Your task to perform on an android device: turn notification dots off Image 0: 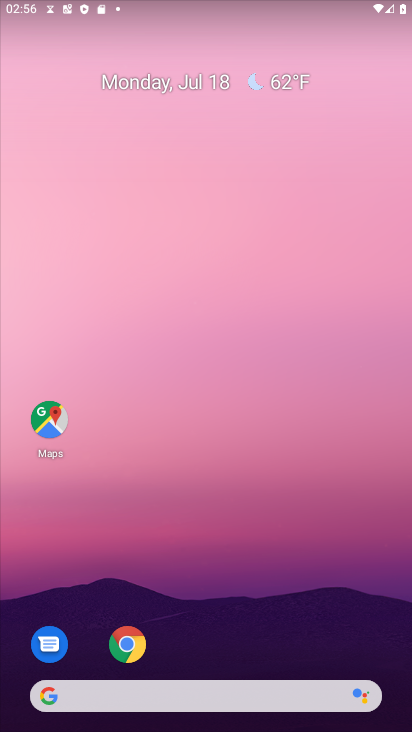
Step 0: press back button
Your task to perform on an android device: turn notification dots off Image 1: 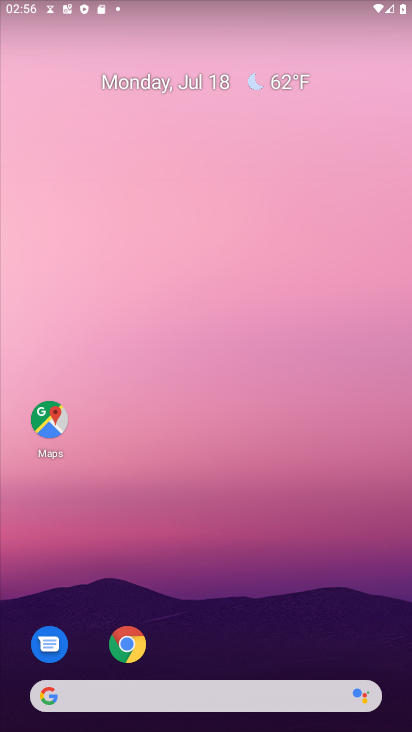
Step 1: click (171, 11)
Your task to perform on an android device: turn notification dots off Image 2: 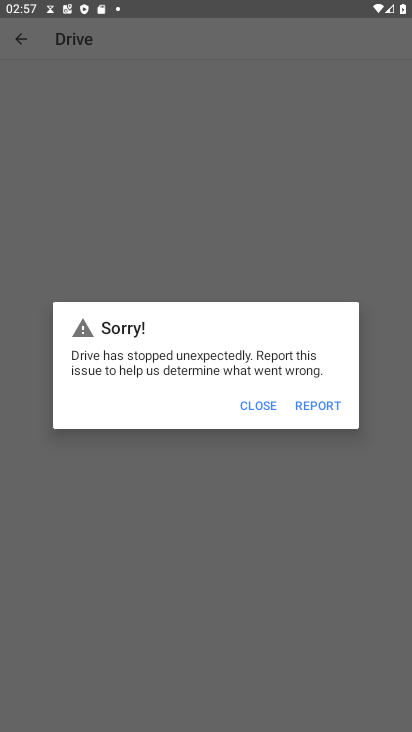
Step 2: click (260, 398)
Your task to perform on an android device: turn notification dots off Image 3: 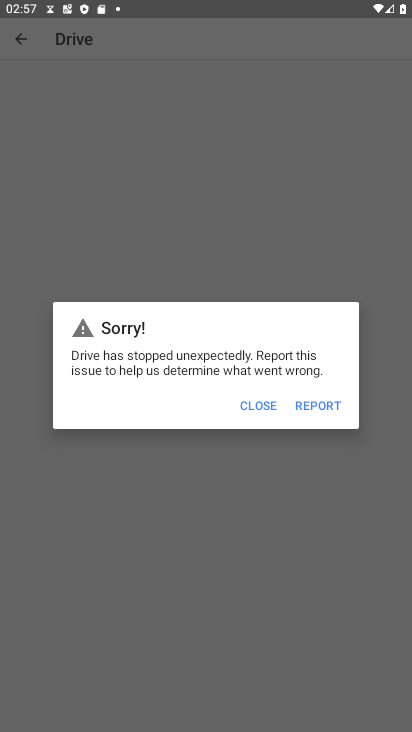
Step 3: click (260, 398)
Your task to perform on an android device: turn notification dots off Image 4: 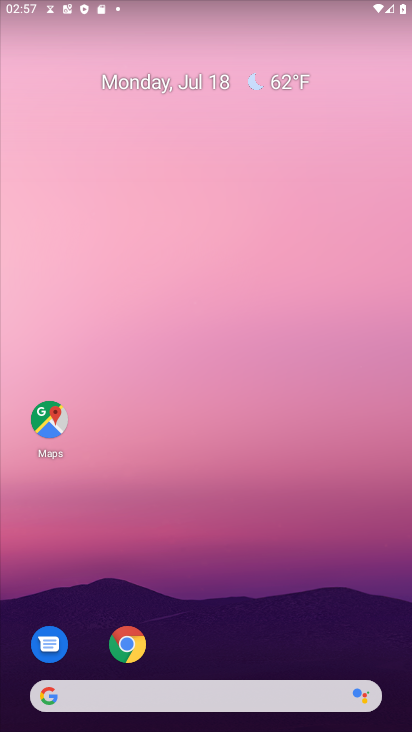
Step 4: drag from (269, 621) to (200, 60)
Your task to perform on an android device: turn notification dots off Image 5: 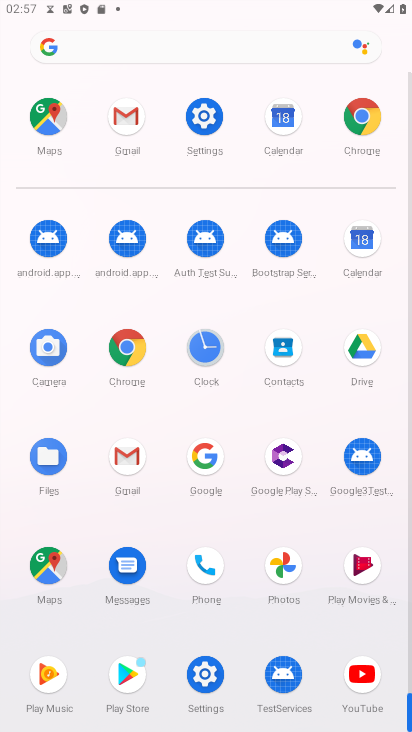
Step 5: drag from (255, 555) to (268, 53)
Your task to perform on an android device: turn notification dots off Image 6: 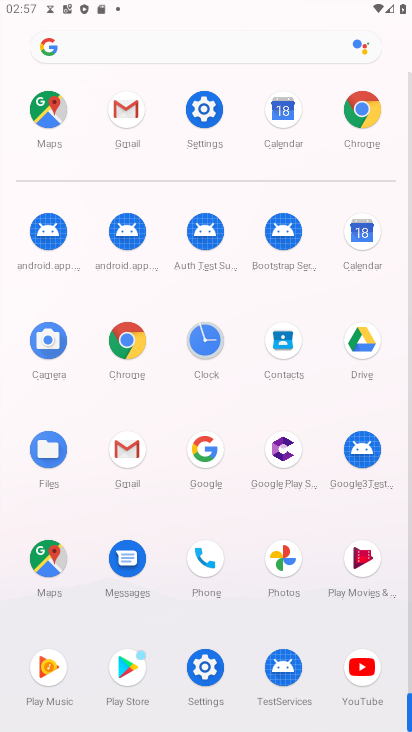
Step 6: click (205, 111)
Your task to perform on an android device: turn notification dots off Image 7: 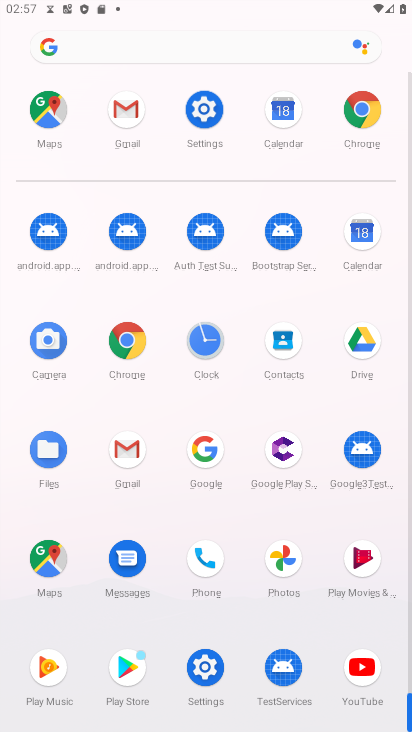
Step 7: click (169, 128)
Your task to perform on an android device: turn notification dots off Image 8: 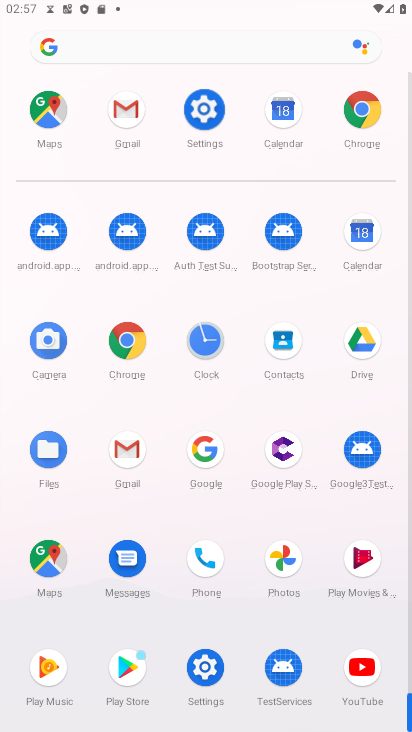
Step 8: click (168, 129)
Your task to perform on an android device: turn notification dots off Image 9: 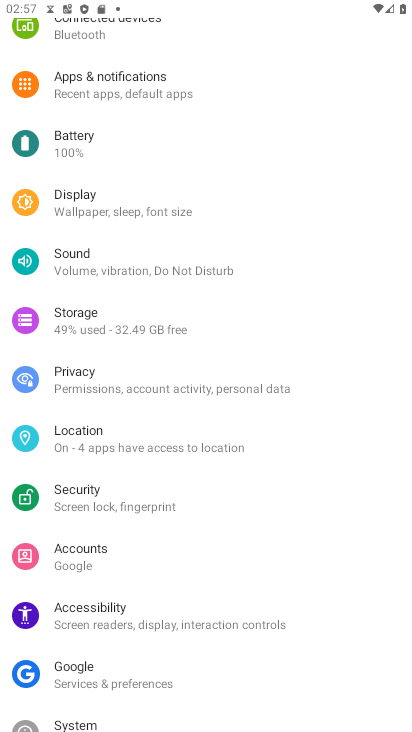
Step 9: click (76, 438)
Your task to perform on an android device: turn notification dots off Image 10: 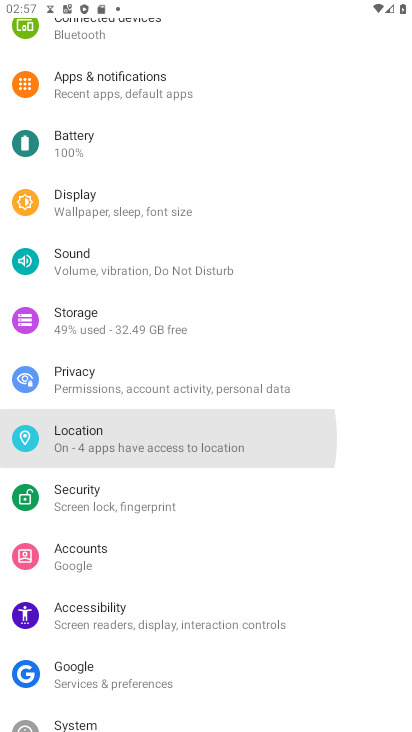
Step 10: click (75, 436)
Your task to perform on an android device: turn notification dots off Image 11: 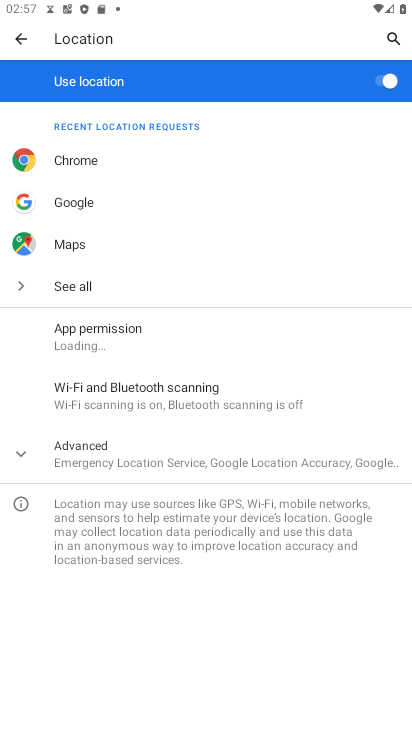
Step 11: click (67, 451)
Your task to perform on an android device: turn notification dots off Image 12: 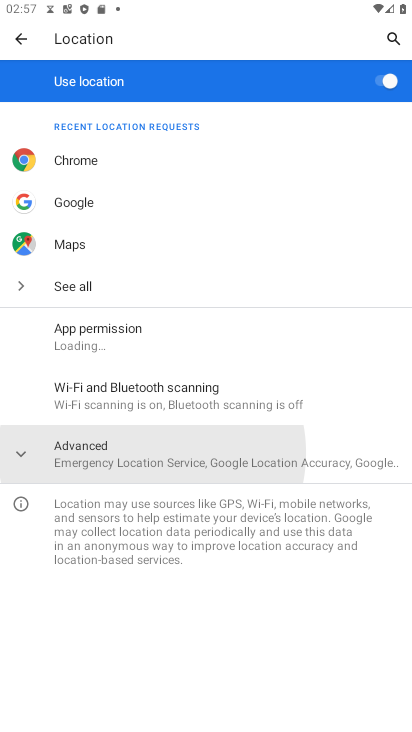
Step 12: click (82, 451)
Your task to perform on an android device: turn notification dots off Image 13: 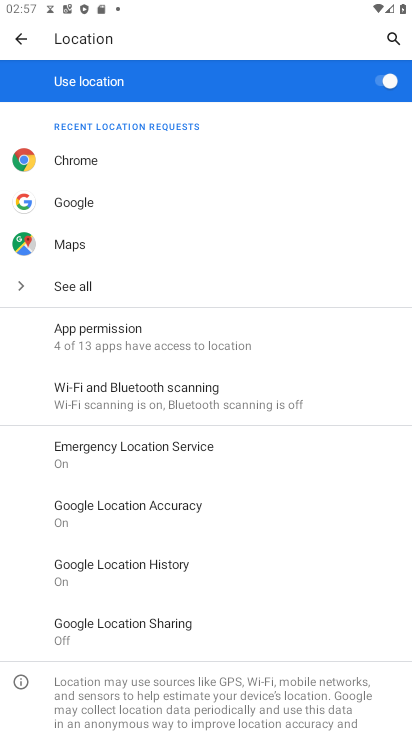
Step 13: click (14, 41)
Your task to perform on an android device: turn notification dots off Image 14: 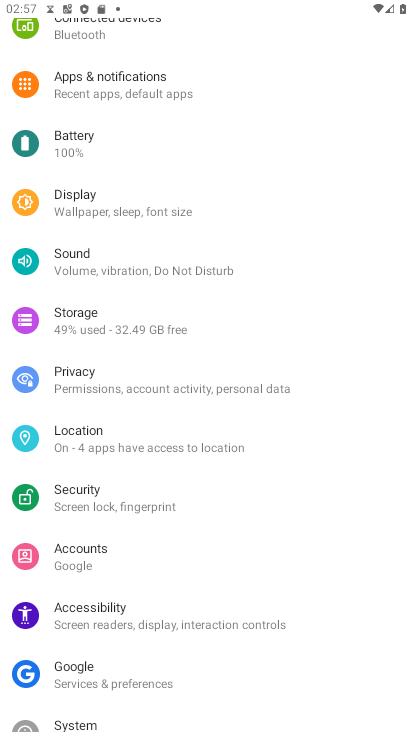
Step 14: click (109, 72)
Your task to perform on an android device: turn notification dots off Image 15: 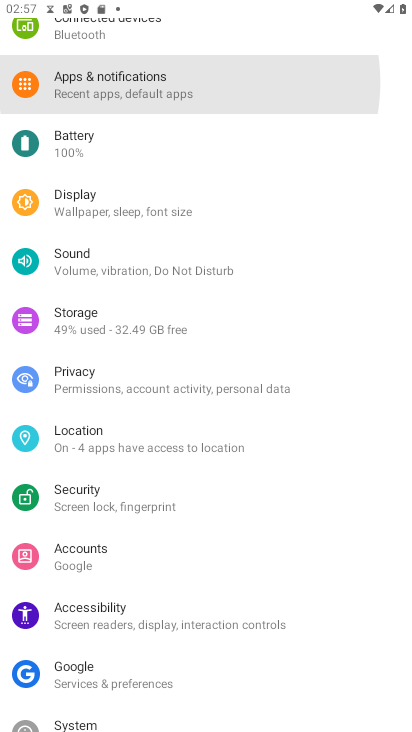
Step 15: click (109, 72)
Your task to perform on an android device: turn notification dots off Image 16: 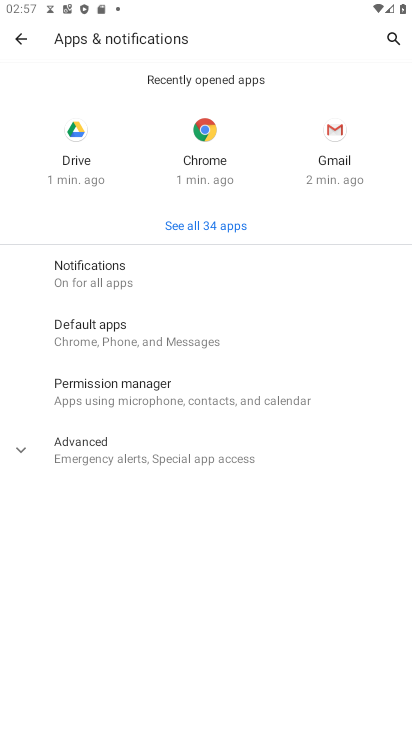
Step 16: click (67, 283)
Your task to perform on an android device: turn notification dots off Image 17: 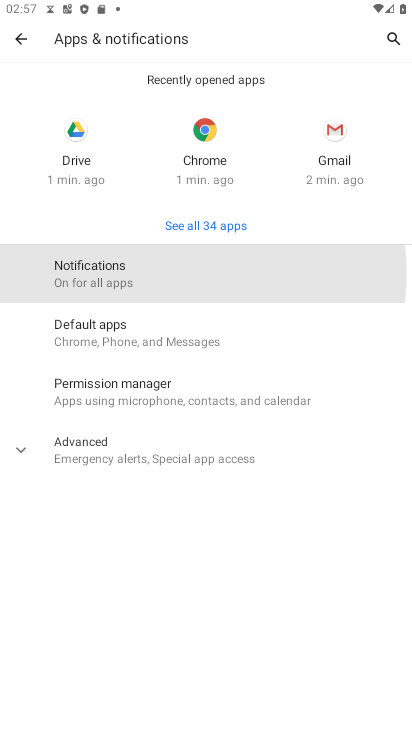
Step 17: click (74, 276)
Your task to perform on an android device: turn notification dots off Image 18: 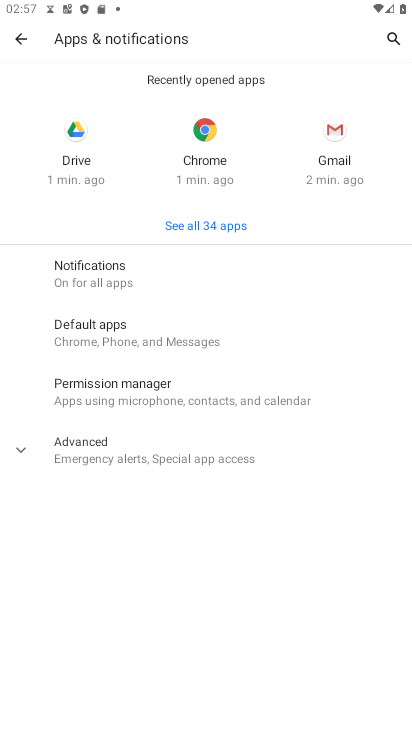
Step 18: click (74, 276)
Your task to perform on an android device: turn notification dots off Image 19: 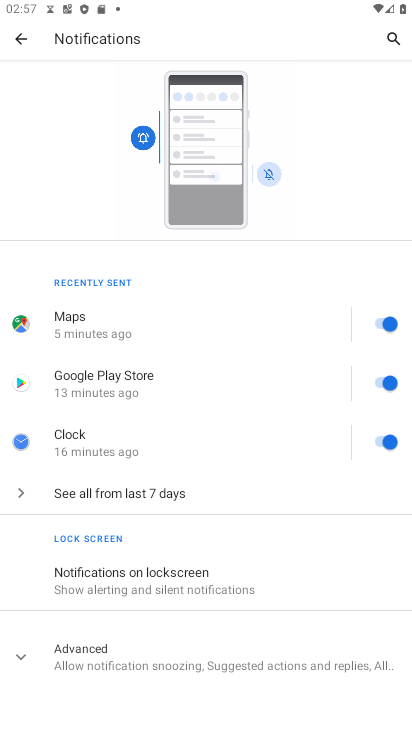
Step 19: click (95, 657)
Your task to perform on an android device: turn notification dots off Image 20: 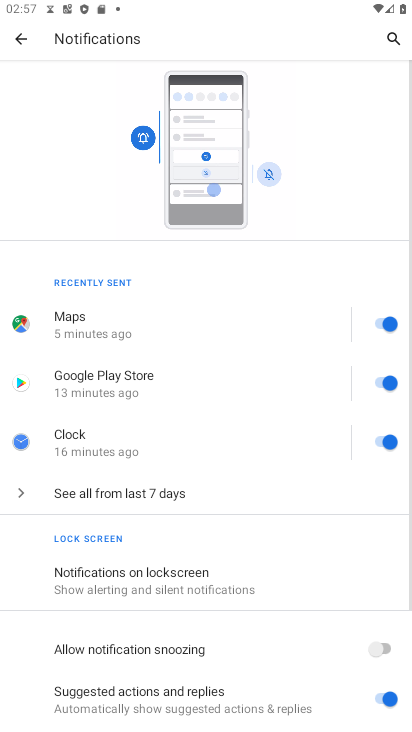
Step 20: drag from (223, 557) to (200, 338)
Your task to perform on an android device: turn notification dots off Image 21: 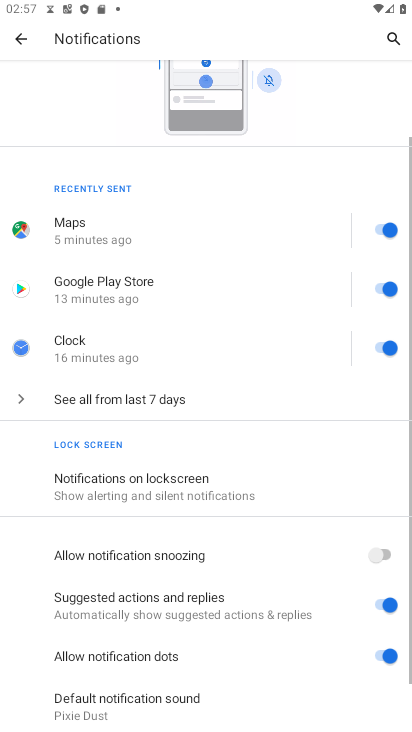
Step 21: drag from (166, 438) to (166, 345)
Your task to perform on an android device: turn notification dots off Image 22: 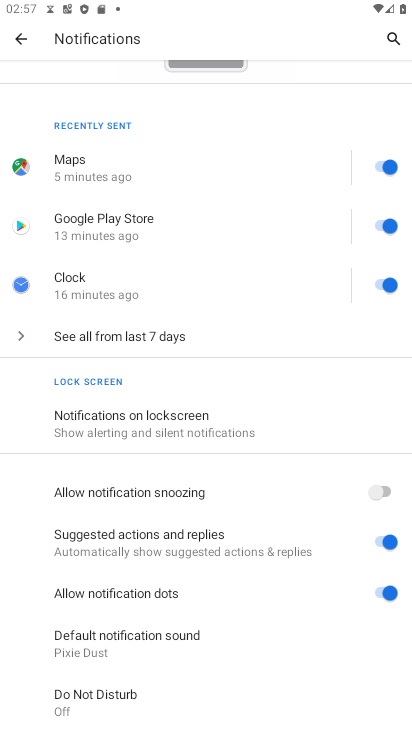
Step 22: click (375, 596)
Your task to perform on an android device: turn notification dots off Image 23: 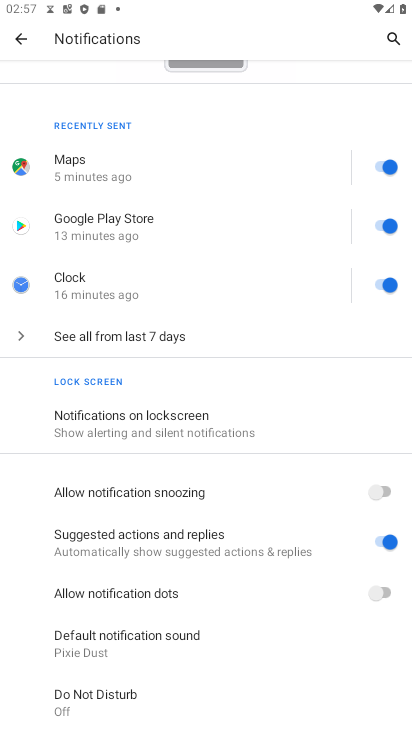
Step 23: task complete